Your task to perform on an android device: turn off priority inbox in the gmail app Image 0: 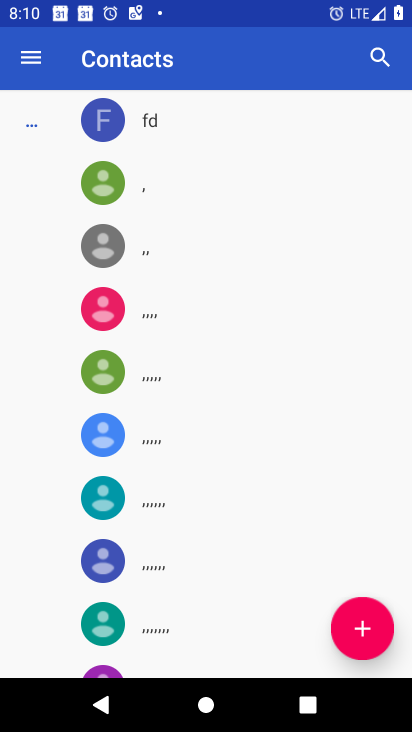
Step 0: press home button
Your task to perform on an android device: turn off priority inbox in the gmail app Image 1: 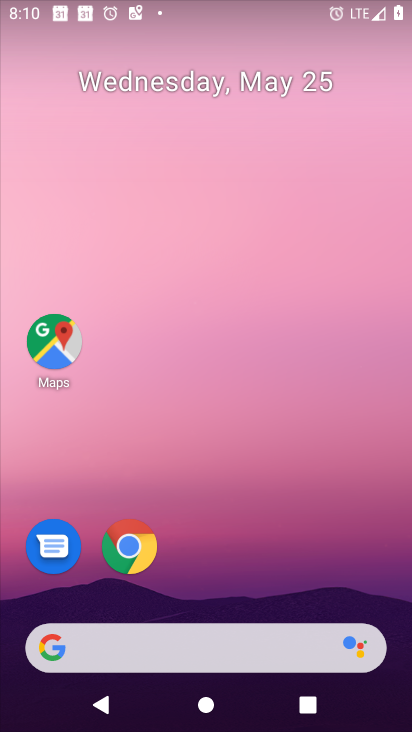
Step 1: drag from (394, 605) to (374, 237)
Your task to perform on an android device: turn off priority inbox in the gmail app Image 2: 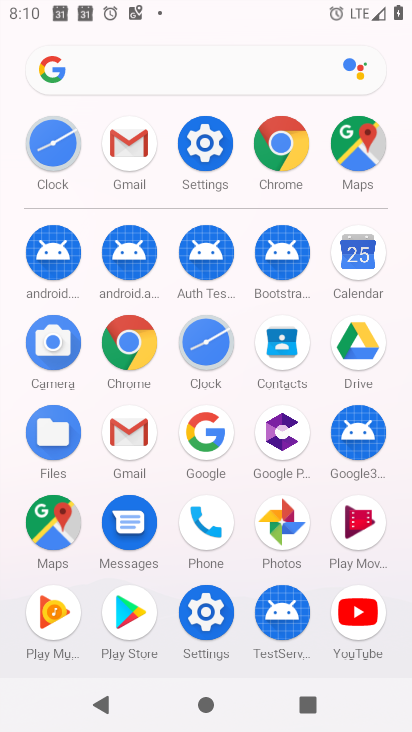
Step 2: click (141, 447)
Your task to perform on an android device: turn off priority inbox in the gmail app Image 3: 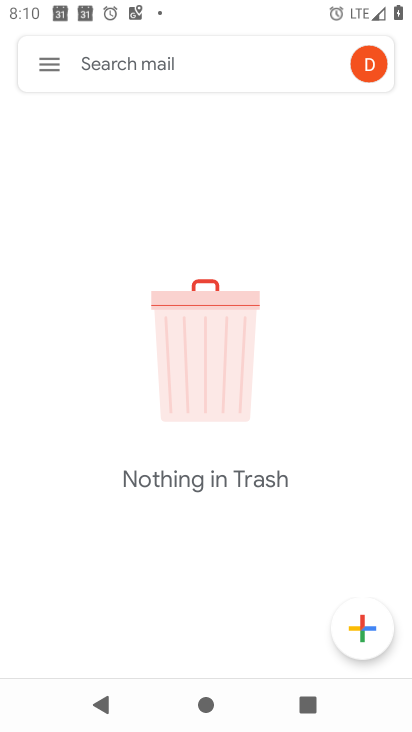
Step 3: click (49, 63)
Your task to perform on an android device: turn off priority inbox in the gmail app Image 4: 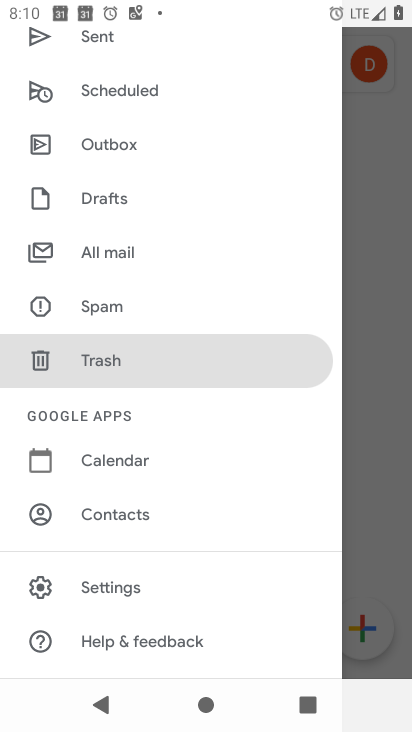
Step 4: drag from (242, 191) to (249, 298)
Your task to perform on an android device: turn off priority inbox in the gmail app Image 5: 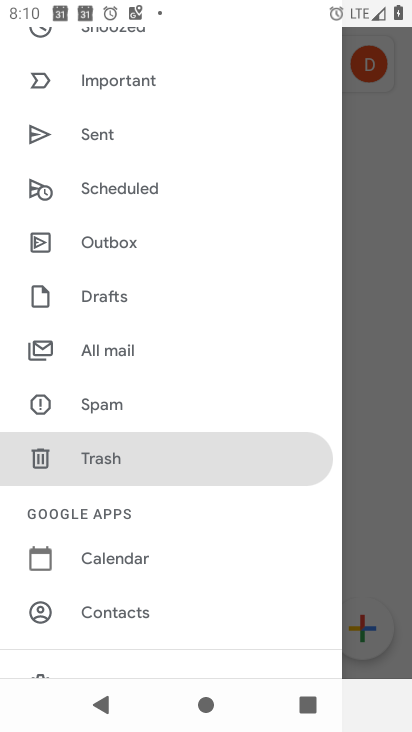
Step 5: drag from (264, 183) to (268, 263)
Your task to perform on an android device: turn off priority inbox in the gmail app Image 6: 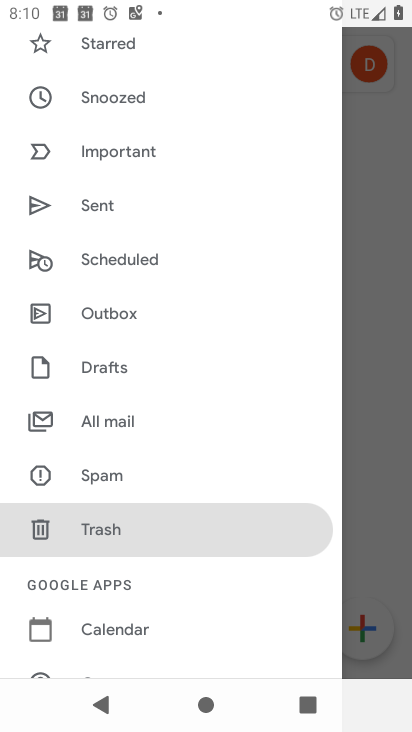
Step 6: drag from (278, 160) to (275, 252)
Your task to perform on an android device: turn off priority inbox in the gmail app Image 7: 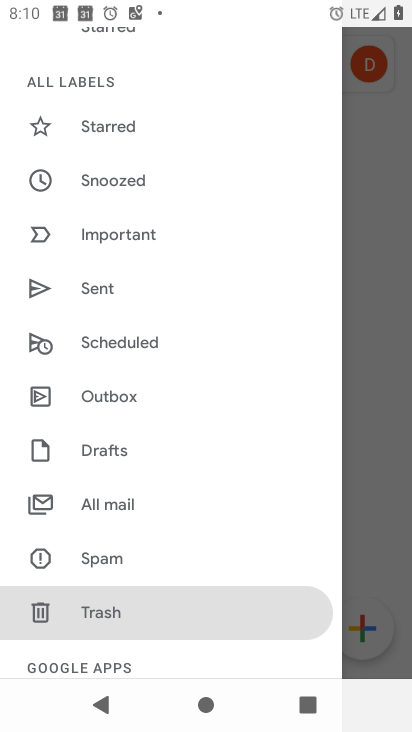
Step 7: drag from (259, 151) to (262, 260)
Your task to perform on an android device: turn off priority inbox in the gmail app Image 8: 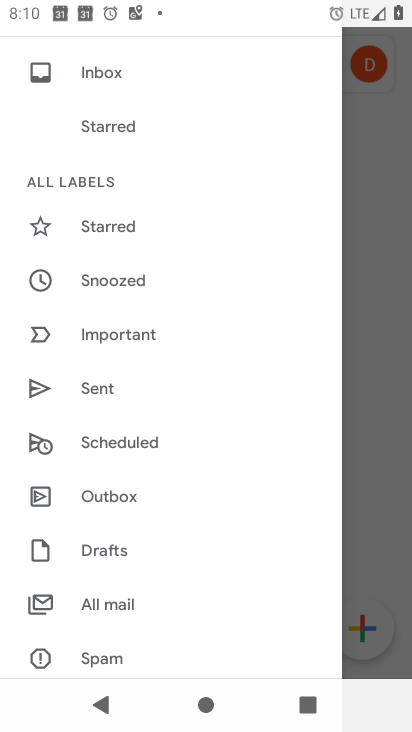
Step 8: drag from (253, 191) to (261, 300)
Your task to perform on an android device: turn off priority inbox in the gmail app Image 9: 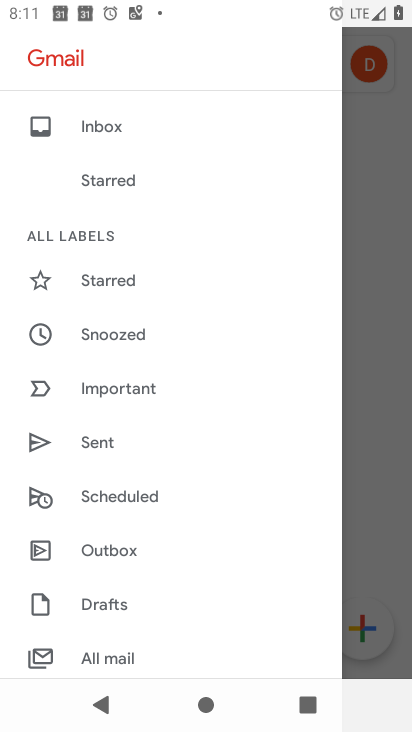
Step 9: drag from (268, 345) to (271, 257)
Your task to perform on an android device: turn off priority inbox in the gmail app Image 10: 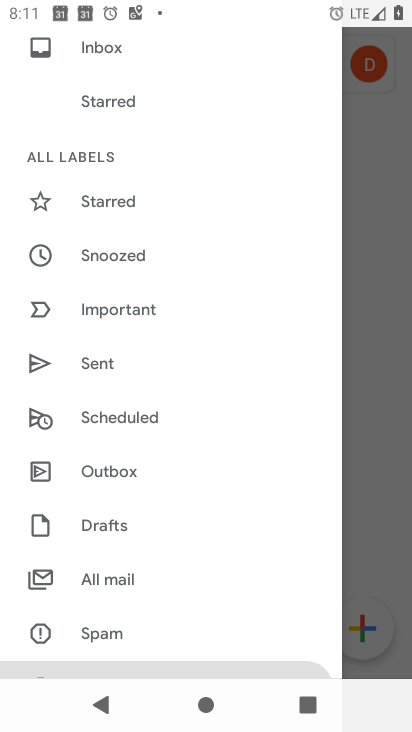
Step 10: drag from (278, 333) to (276, 246)
Your task to perform on an android device: turn off priority inbox in the gmail app Image 11: 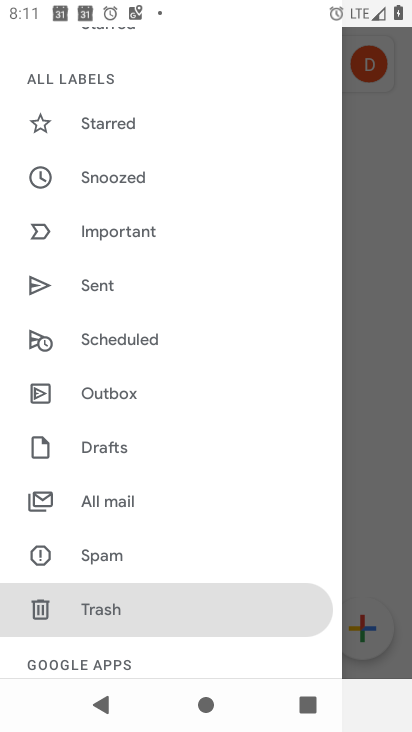
Step 11: drag from (276, 333) to (276, 261)
Your task to perform on an android device: turn off priority inbox in the gmail app Image 12: 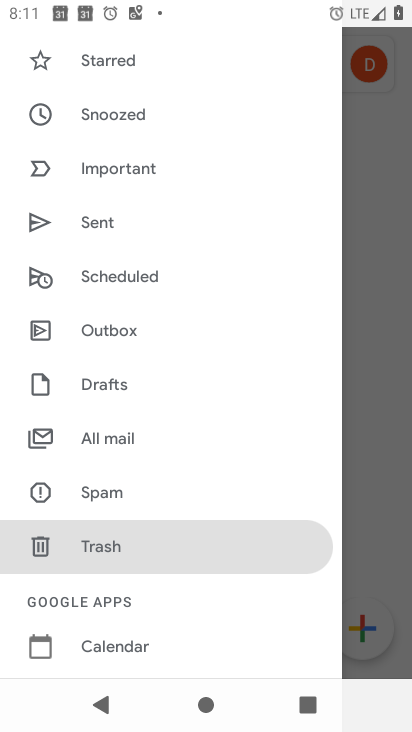
Step 12: drag from (267, 379) to (285, 301)
Your task to perform on an android device: turn off priority inbox in the gmail app Image 13: 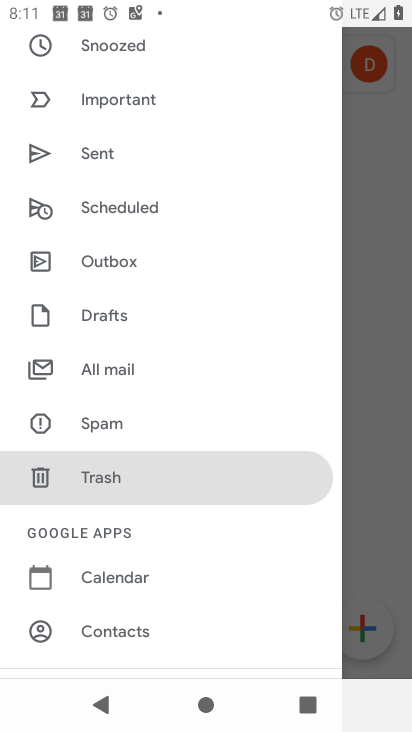
Step 13: drag from (283, 389) to (294, 319)
Your task to perform on an android device: turn off priority inbox in the gmail app Image 14: 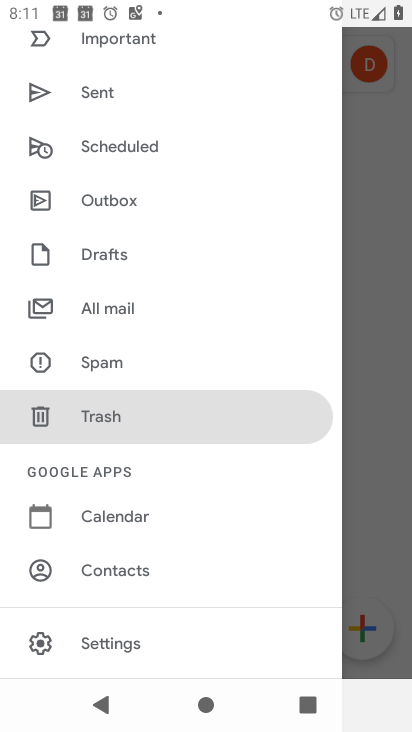
Step 14: drag from (285, 397) to (285, 324)
Your task to perform on an android device: turn off priority inbox in the gmail app Image 15: 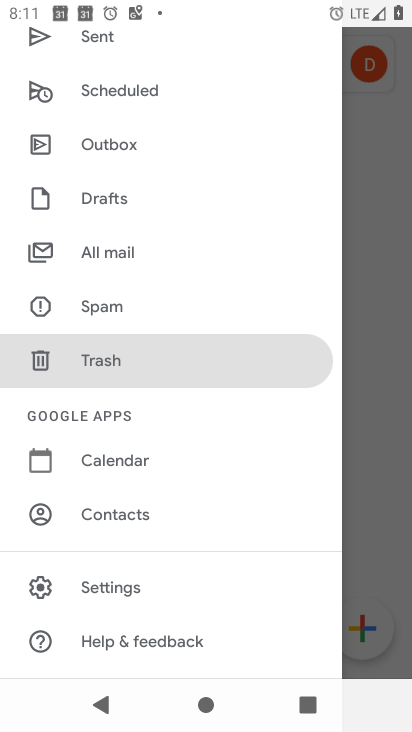
Step 15: drag from (273, 400) to (273, 325)
Your task to perform on an android device: turn off priority inbox in the gmail app Image 16: 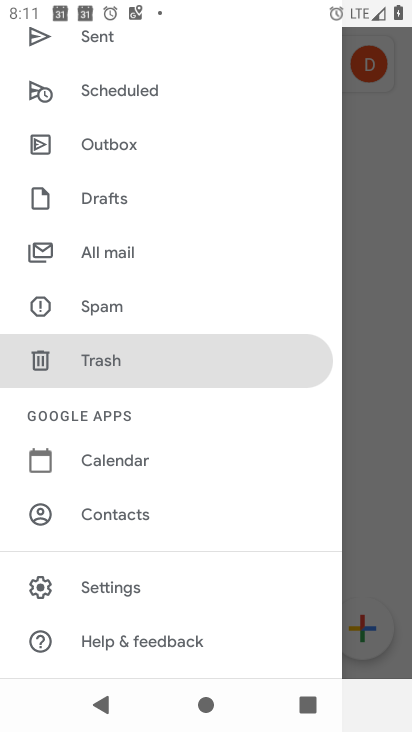
Step 16: click (162, 593)
Your task to perform on an android device: turn off priority inbox in the gmail app Image 17: 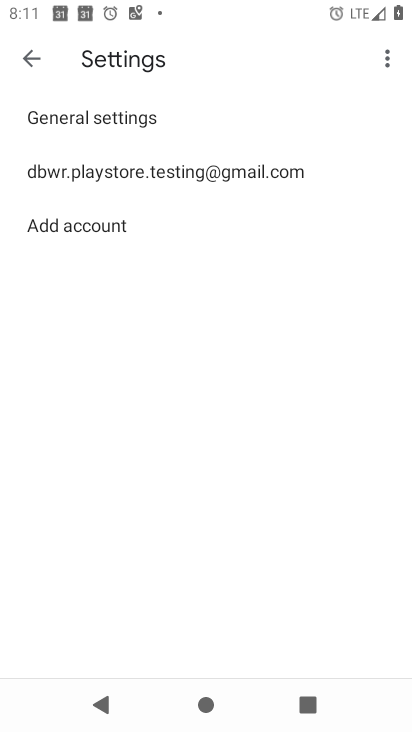
Step 17: click (211, 168)
Your task to perform on an android device: turn off priority inbox in the gmail app Image 18: 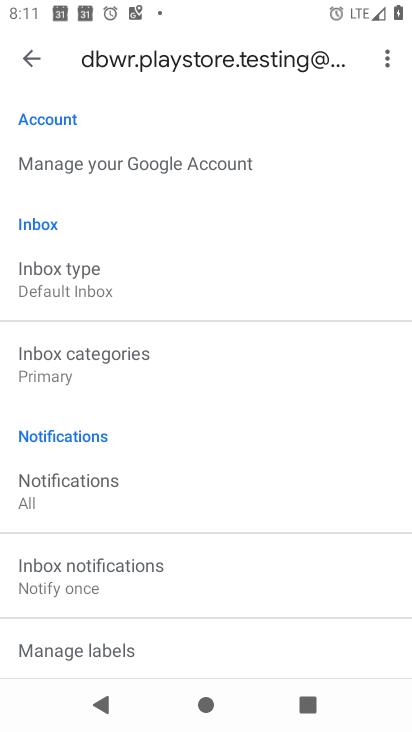
Step 18: task complete